Your task to perform on an android device: Open Maps and search for coffee Image 0: 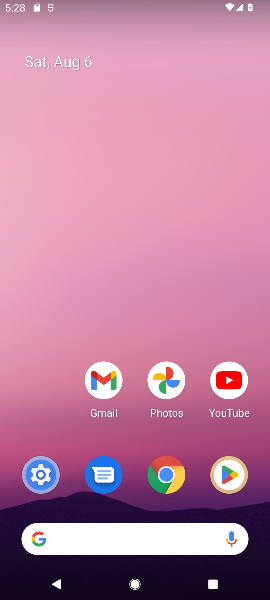
Step 0: press home button
Your task to perform on an android device: Open Maps and search for coffee Image 1: 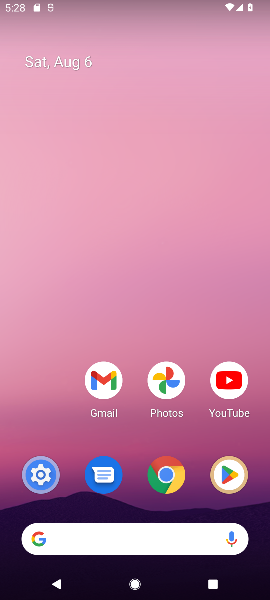
Step 1: drag from (137, 442) to (150, 2)
Your task to perform on an android device: Open Maps and search for coffee Image 2: 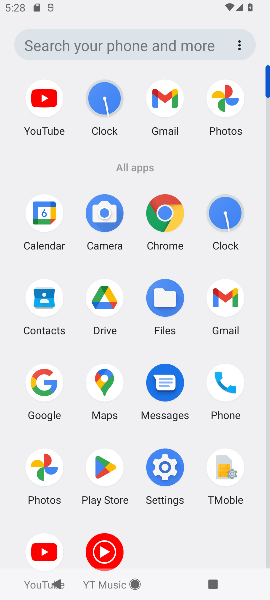
Step 2: click (105, 376)
Your task to perform on an android device: Open Maps and search for coffee Image 3: 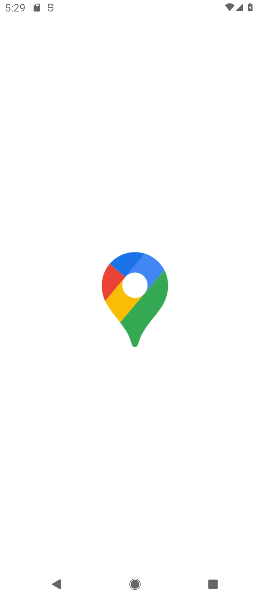
Step 3: task complete